Your task to perform on an android device: change your default location settings in chrome Image 0: 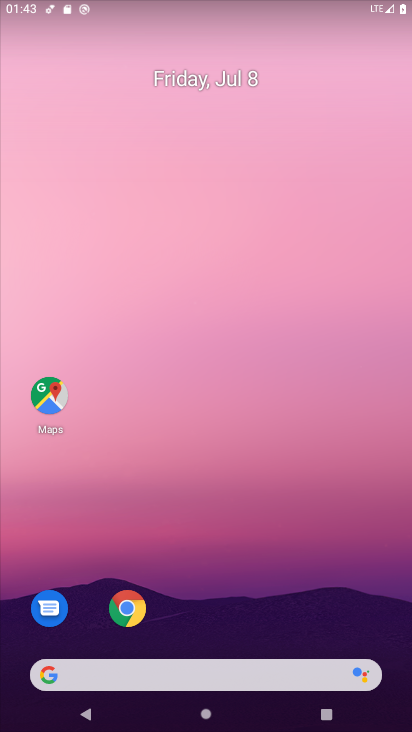
Step 0: drag from (229, 651) to (293, 338)
Your task to perform on an android device: change your default location settings in chrome Image 1: 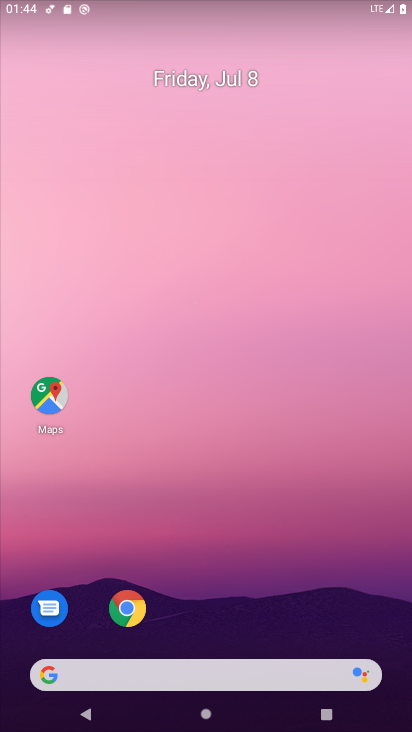
Step 1: click (222, 215)
Your task to perform on an android device: change your default location settings in chrome Image 2: 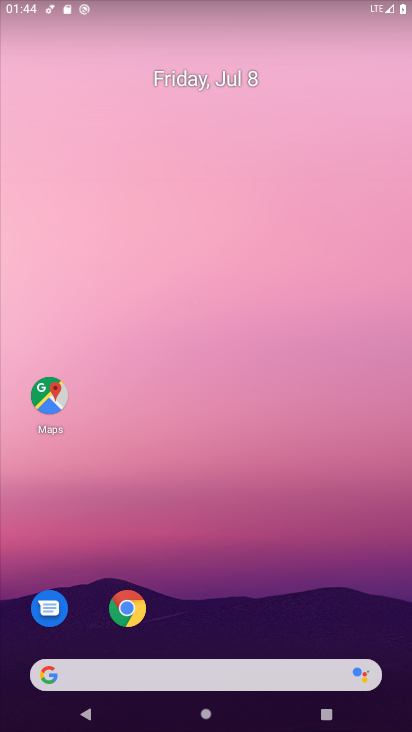
Step 2: click (132, 587)
Your task to perform on an android device: change your default location settings in chrome Image 3: 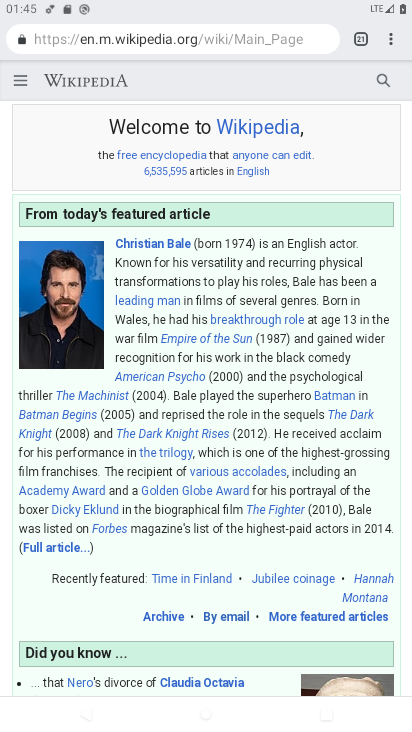
Step 3: click (384, 27)
Your task to perform on an android device: change your default location settings in chrome Image 4: 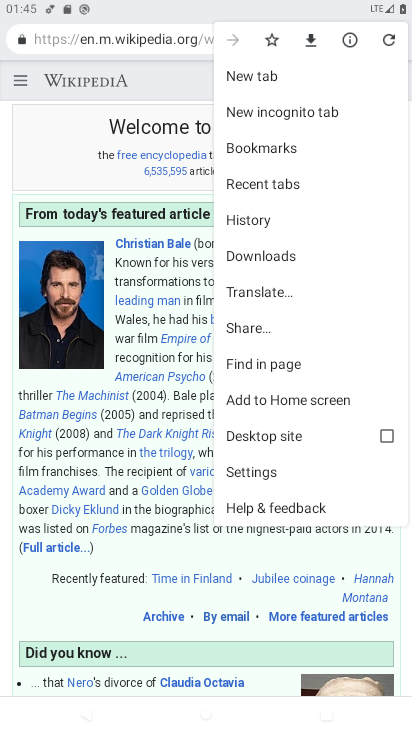
Step 4: click (272, 471)
Your task to perform on an android device: change your default location settings in chrome Image 5: 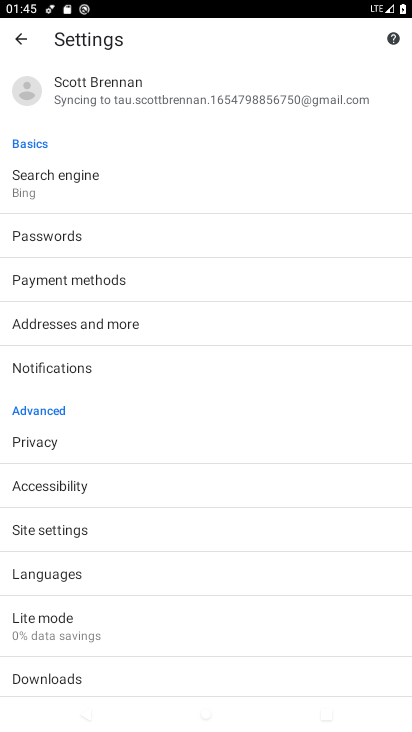
Step 5: click (88, 527)
Your task to perform on an android device: change your default location settings in chrome Image 6: 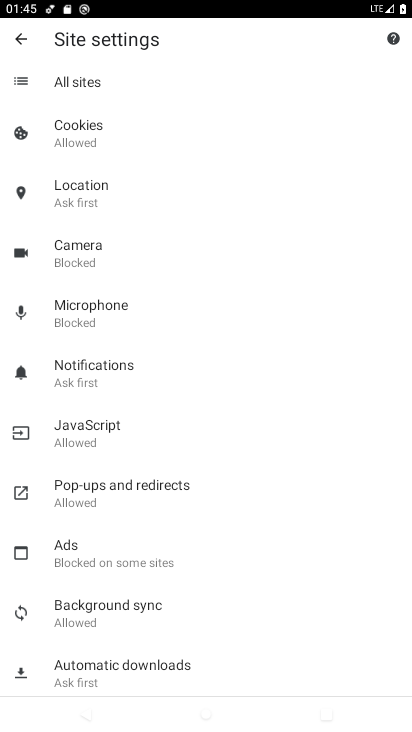
Step 6: click (135, 193)
Your task to perform on an android device: change your default location settings in chrome Image 7: 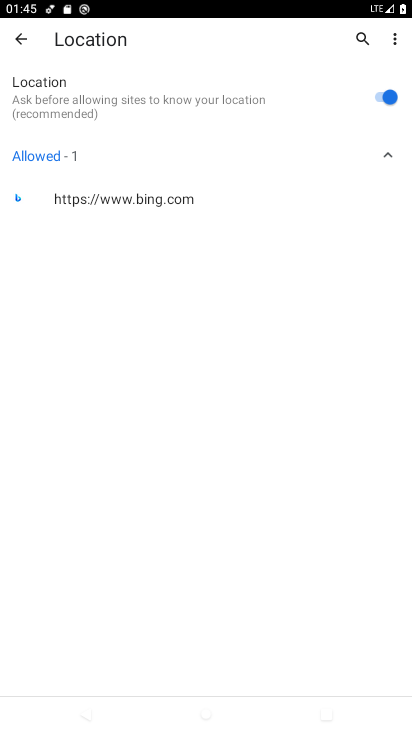
Step 7: click (389, 100)
Your task to perform on an android device: change your default location settings in chrome Image 8: 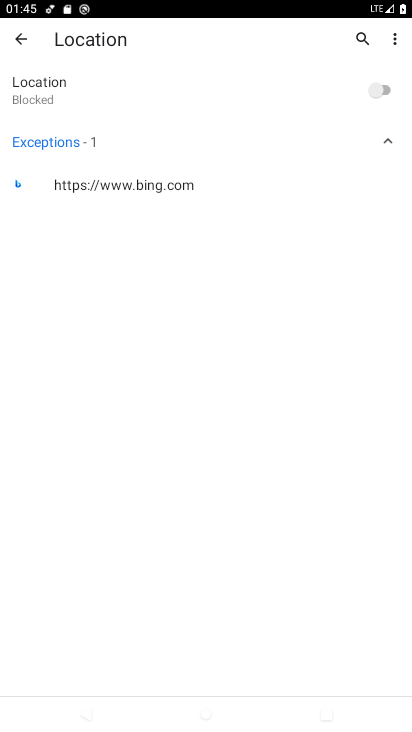
Step 8: task complete